Your task to perform on an android device: open chrome privacy settings Image 0: 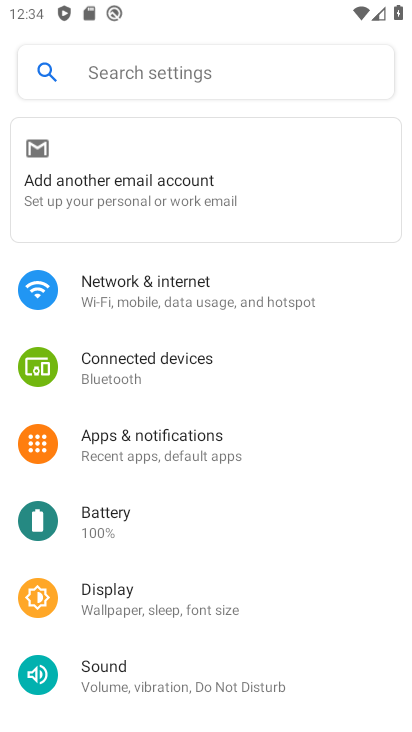
Step 0: press home button
Your task to perform on an android device: open chrome privacy settings Image 1: 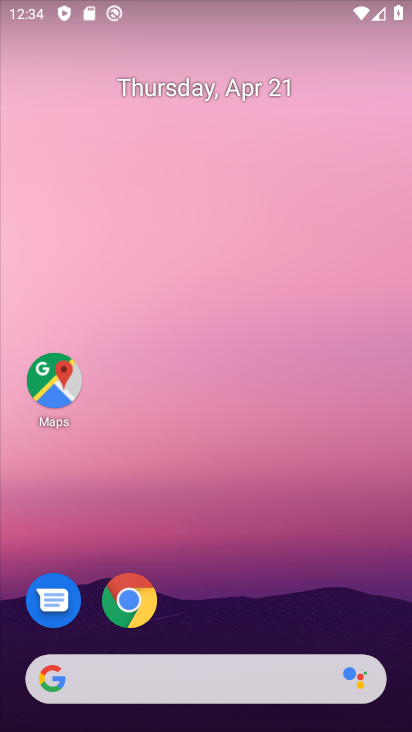
Step 1: click (132, 594)
Your task to perform on an android device: open chrome privacy settings Image 2: 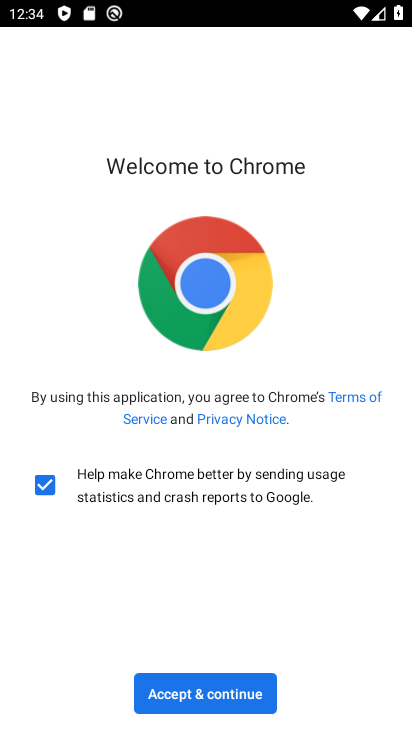
Step 2: click (198, 700)
Your task to perform on an android device: open chrome privacy settings Image 3: 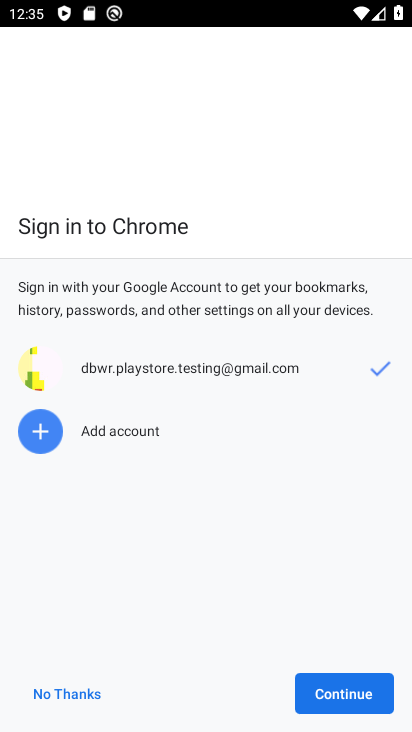
Step 3: click (321, 689)
Your task to perform on an android device: open chrome privacy settings Image 4: 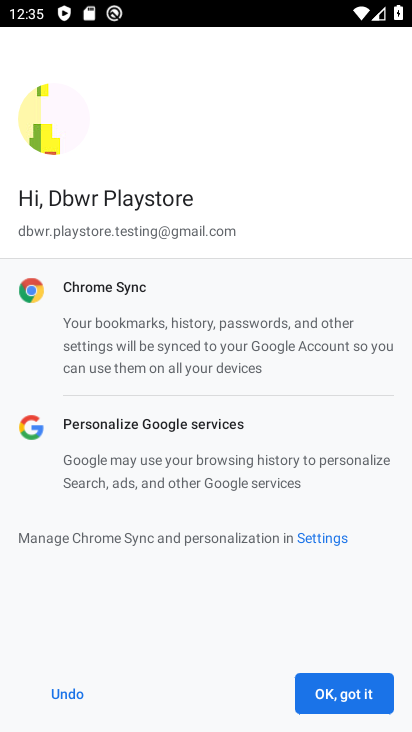
Step 4: click (321, 689)
Your task to perform on an android device: open chrome privacy settings Image 5: 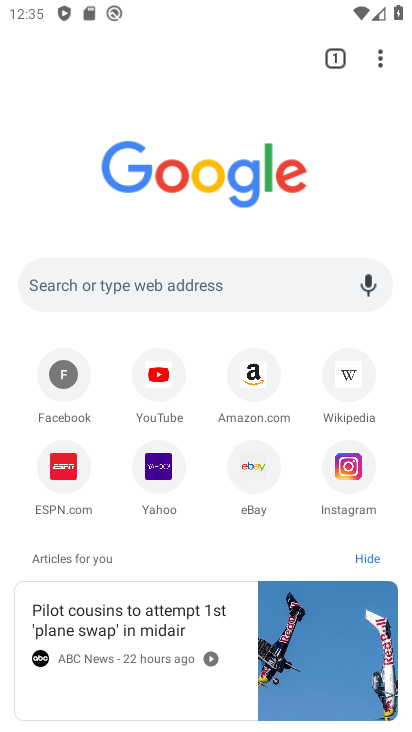
Step 5: click (377, 63)
Your task to perform on an android device: open chrome privacy settings Image 6: 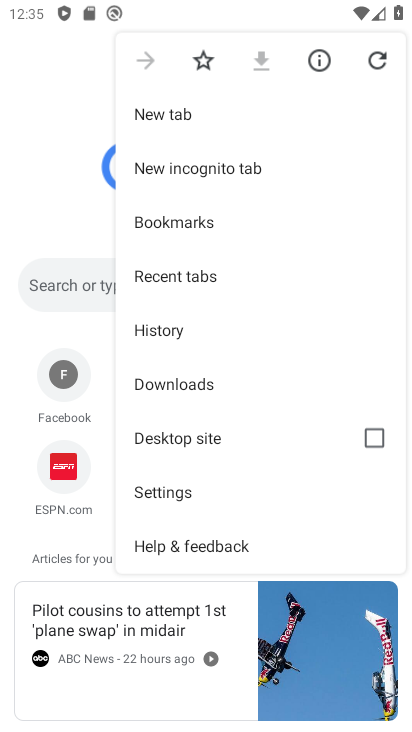
Step 6: click (164, 492)
Your task to perform on an android device: open chrome privacy settings Image 7: 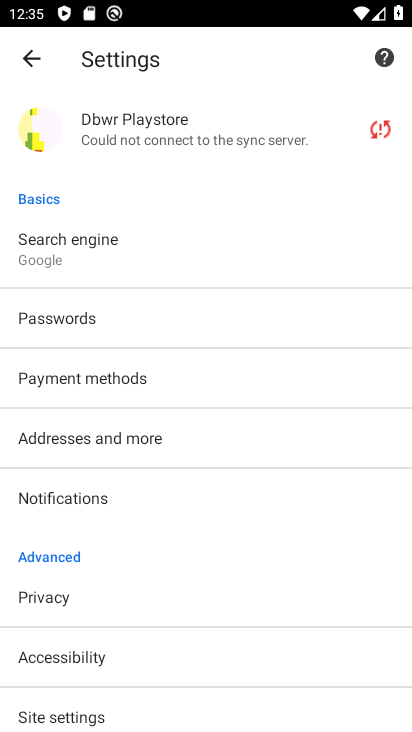
Step 7: click (49, 593)
Your task to perform on an android device: open chrome privacy settings Image 8: 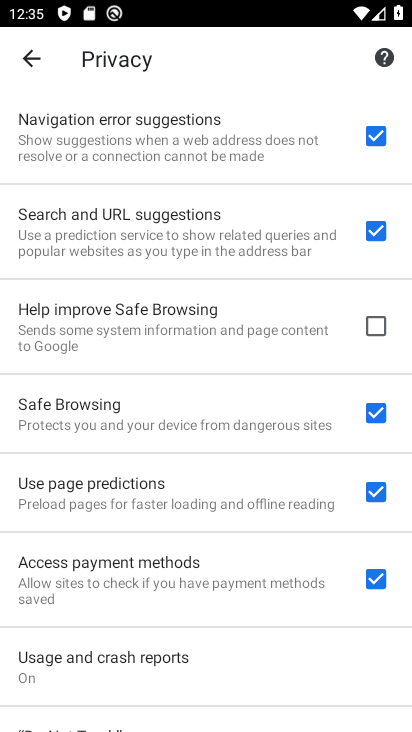
Step 8: task complete